Your task to perform on an android device: turn on notifications settings in the gmail app Image 0: 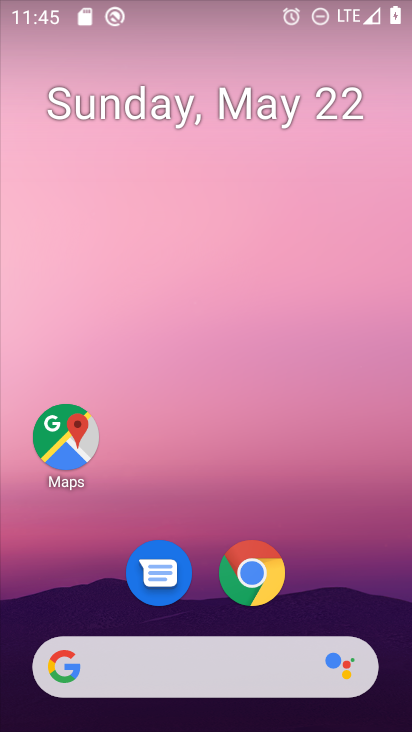
Step 0: drag from (314, 595) to (309, 0)
Your task to perform on an android device: turn on notifications settings in the gmail app Image 1: 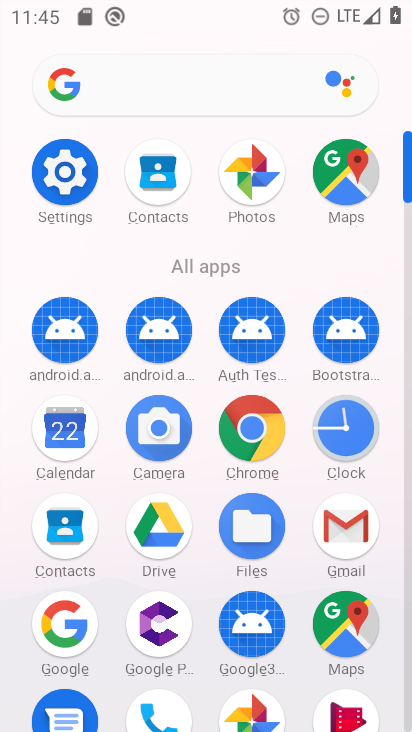
Step 1: click (330, 530)
Your task to perform on an android device: turn on notifications settings in the gmail app Image 2: 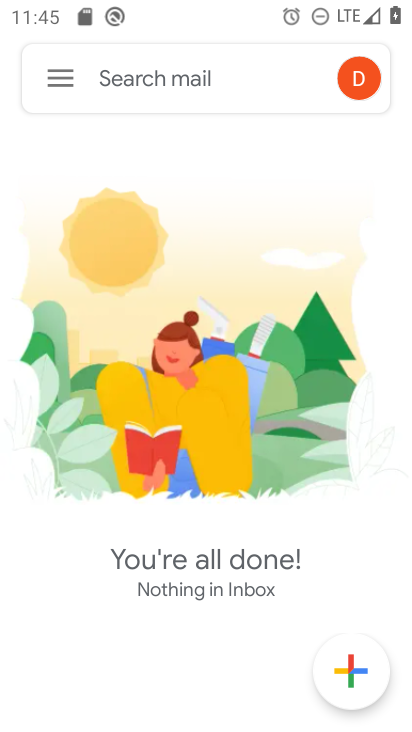
Step 2: click (57, 70)
Your task to perform on an android device: turn on notifications settings in the gmail app Image 3: 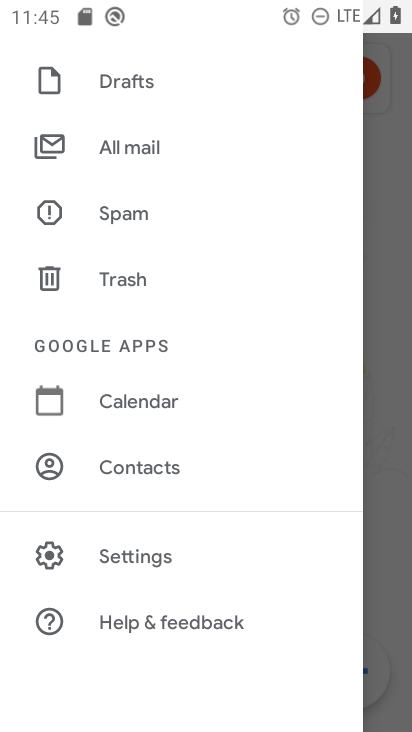
Step 3: click (123, 556)
Your task to perform on an android device: turn on notifications settings in the gmail app Image 4: 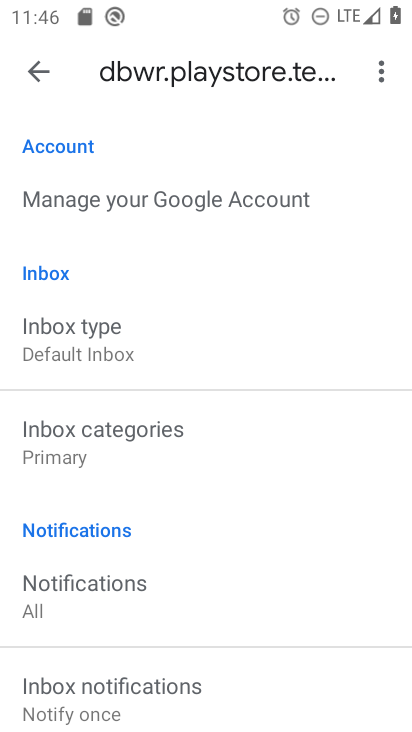
Step 4: drag from (113, 654) to (200, 286)
Your task to perform on an android device: turn on notifications settings in the gmail app Image 5: 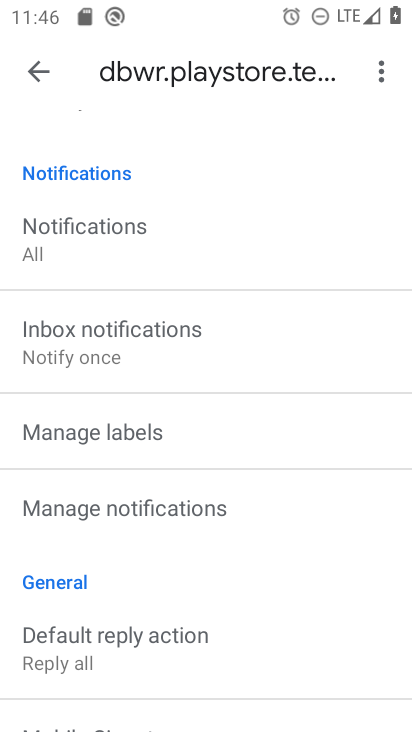
Step 5: click (106, 501)
Your task to perform on an android device: turn on notifications settings in the gmail app Image 6: 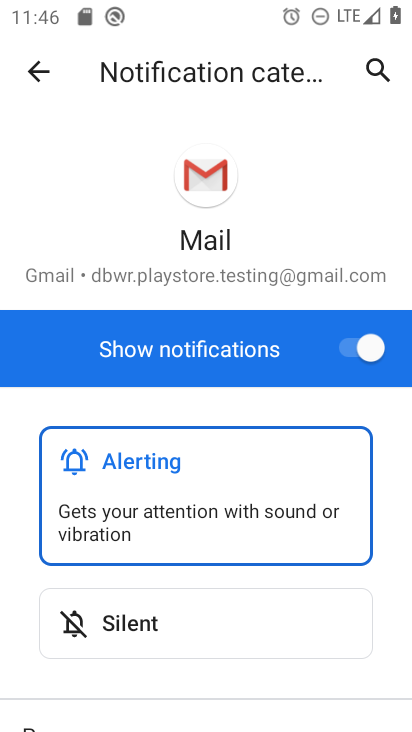
Step 6: task complete